Your task to perform on an android device: Search for vegetarian restaurants on Maps Image 0: 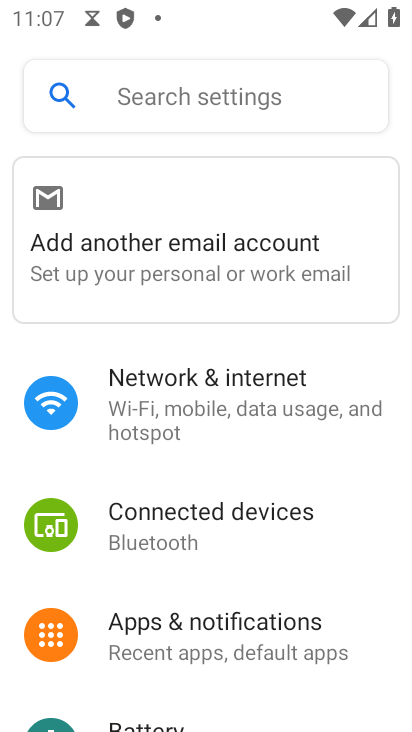
Step 0: press home button
Your task to perform on an android device: Search for vegetarian restaurants on Maps Image 1: 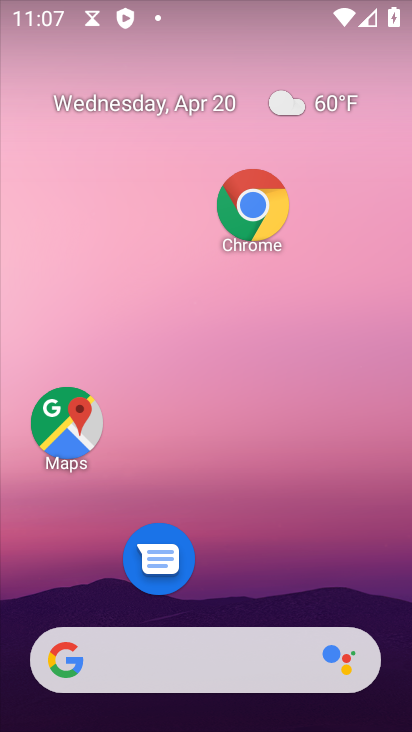
Step 1: drag from (240, 615) to (192, 12)
Your task to perform on an android device: Search for vegetarian restaurants on Maps Image 2: 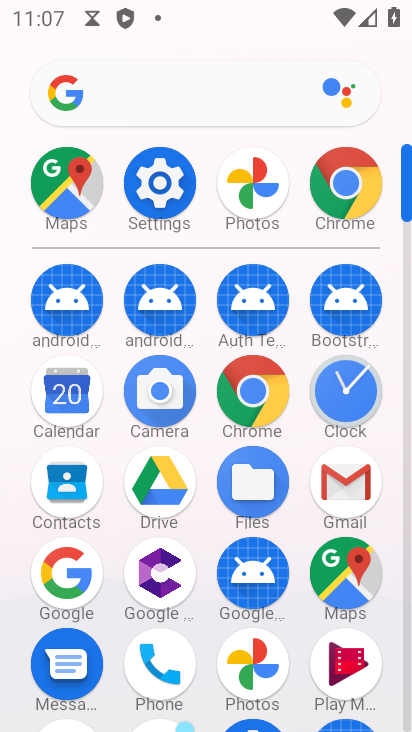
Step 2: click (344, 589)
Your task to perform on an android device: Search for vegetarian restaurants on Maps Image 3: 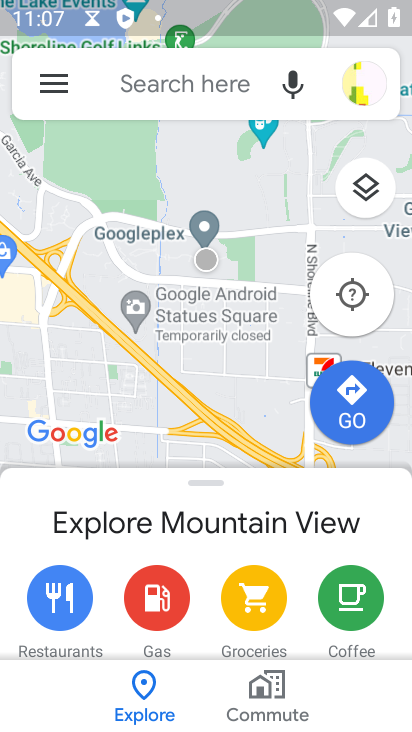
Step 3: click (193, 100)
Your task to perform on an android device: Search for vegetarian restaurants on Maps Image 4: 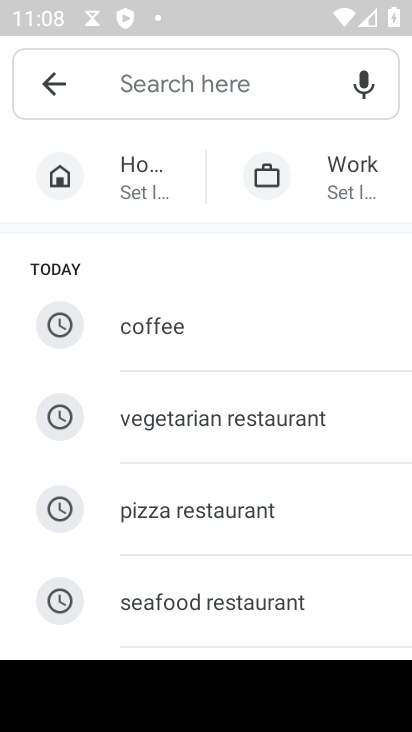
Step 4: click (252, 418)
Your task to perform on an android device: Search for vegetarian restaurants on Maps Image 5: 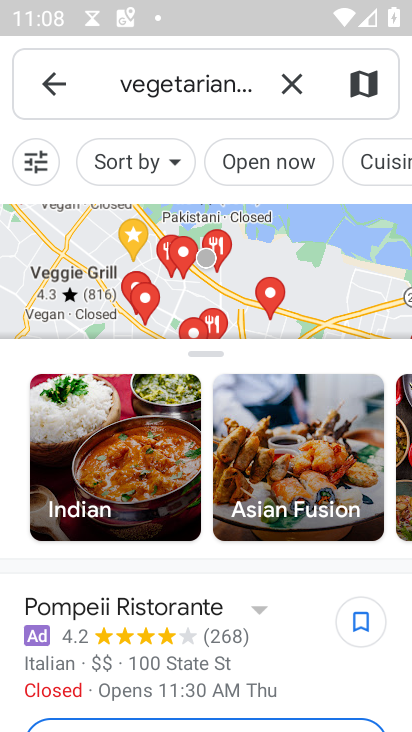
Step 5: task complete